Your task to perform on an android device: Open Google Maps and go to "Timeline" Image 0: 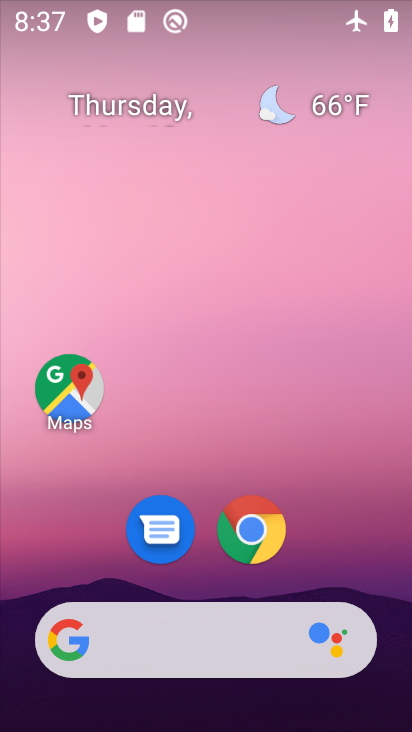
Step 0: click (170, 169)
Your task to perform on an android device: Open Google Maps and go to "Timeline" Image 1: 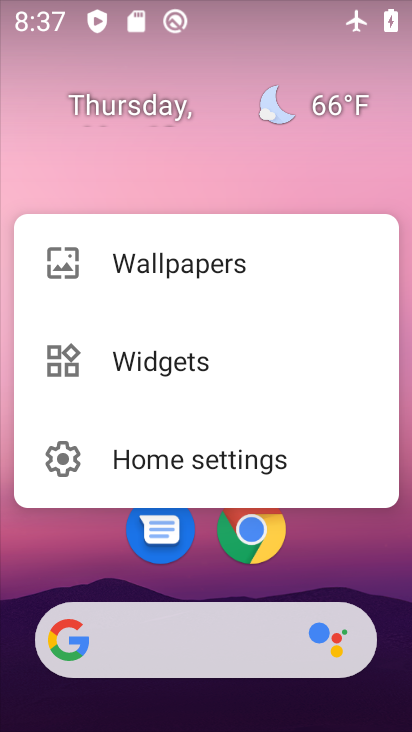
Step 1: click (333, 546)
Your task to perform on an android device: Open Google Maps and go to "Timeline" Image 2: 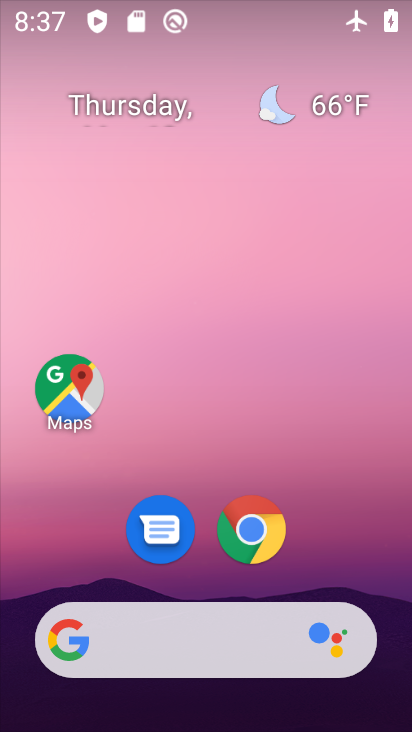
Step 2: drag from (299, 570) to (232, 161)
Your task to perform on an android device: Open Google Maps and go to "Timeline" Image 3: 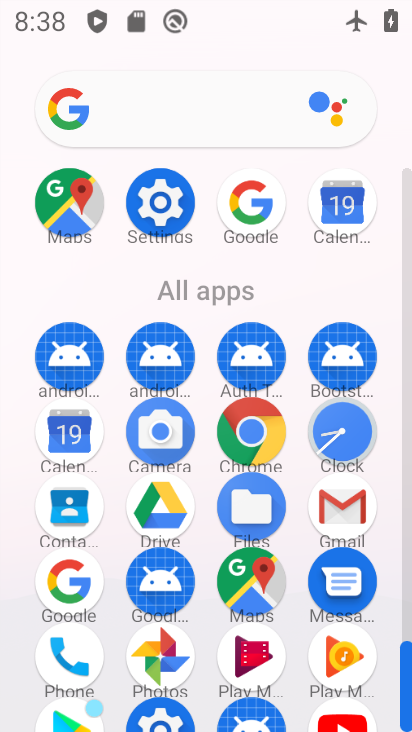
Step 3: click (66, 201)
Your task to perform on an android device: Open Google Maps and go to "Timeline" Image 4: 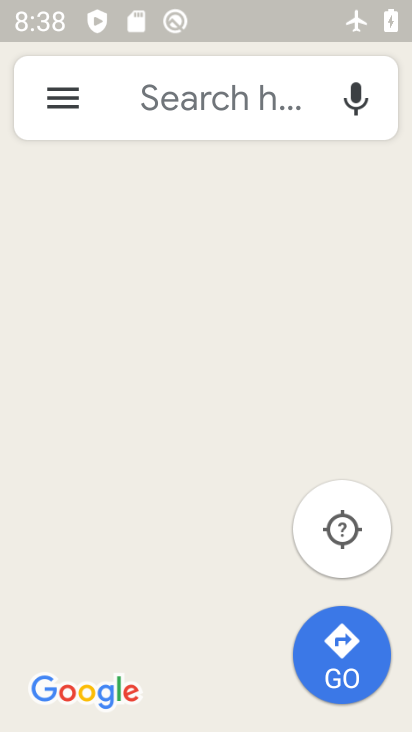
Step 4: click (66, 97)
Your task to perform on an android device: Open Google Maps and go to "Timeline" Image 5: 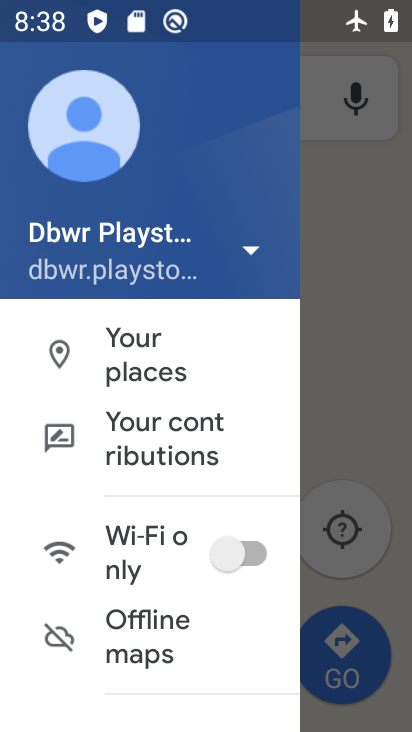
Step 5: click (339, 290)
Your task to perform on an android device: Open Google Maps and go to "Timeline" Image 6: 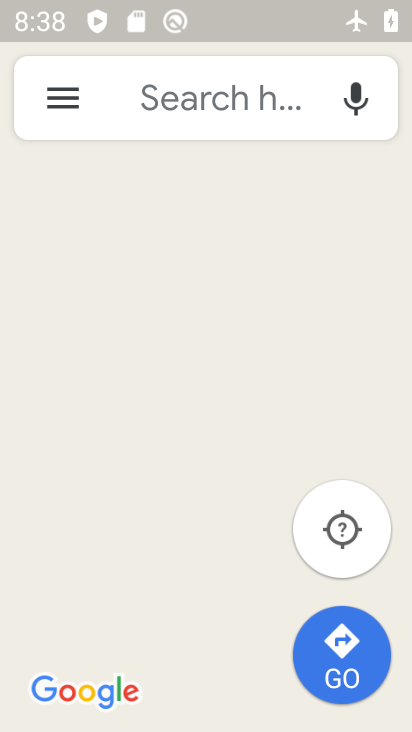
Step 6: task complete